Your task to perform on an android device: Go to privacy settings Image 0: 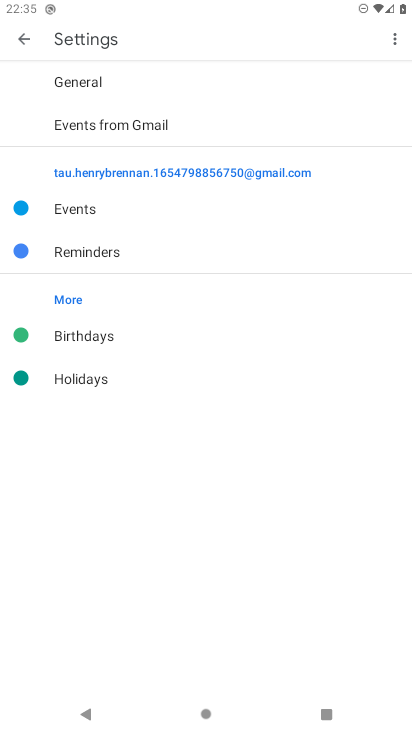
Step 0: press home button
Your task to perform on an android device: Go to privacy settings Image 1: 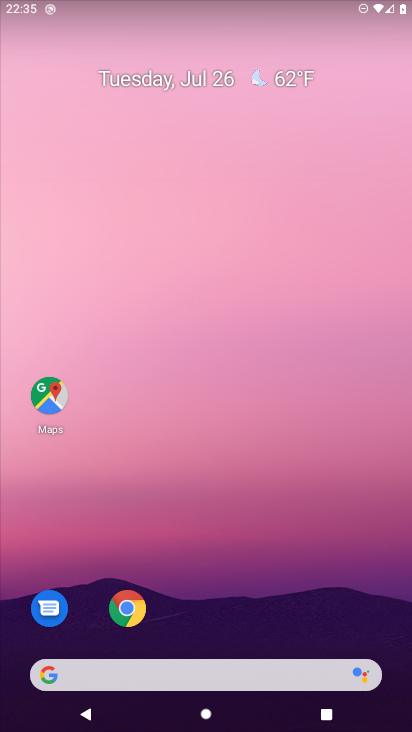
Step 1: drag from (36, 705) to (207, 194)
Your task to perform on an android device: Go to privacy settings Image 2: 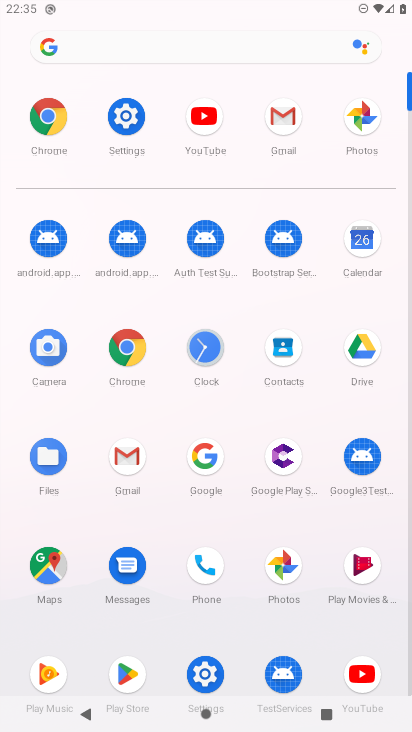
Step 2: click (199, 672)
Your task to perform on an android device: Go to privacy settings Image 3: 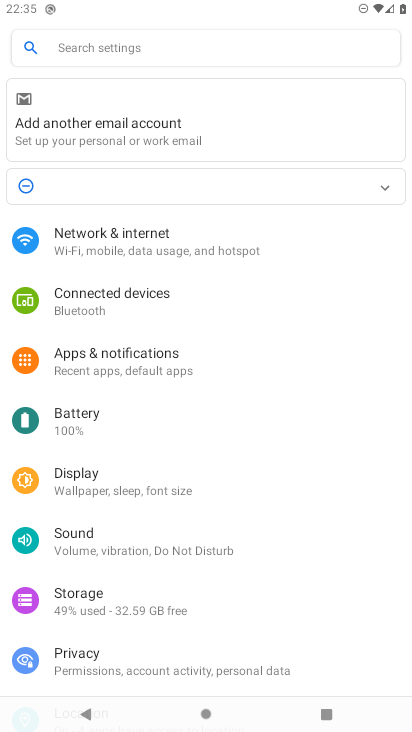
Step 3: click (133, 650)
Your task to perform on an android device: Go to privacy settings Image 4: 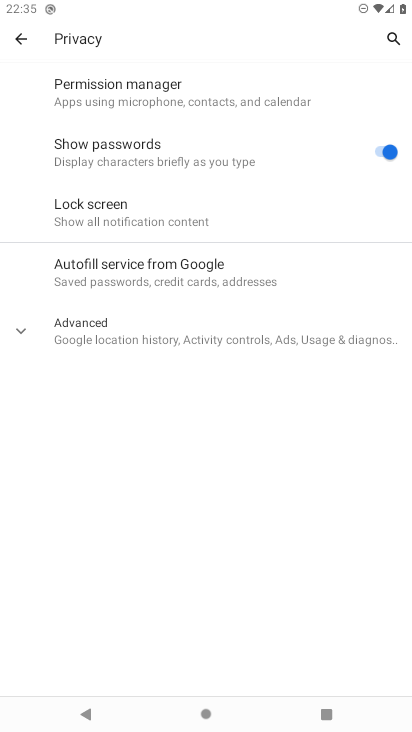
Step 4: task complete